Your task to perform on an android device: When is my next meeting? Image 0: 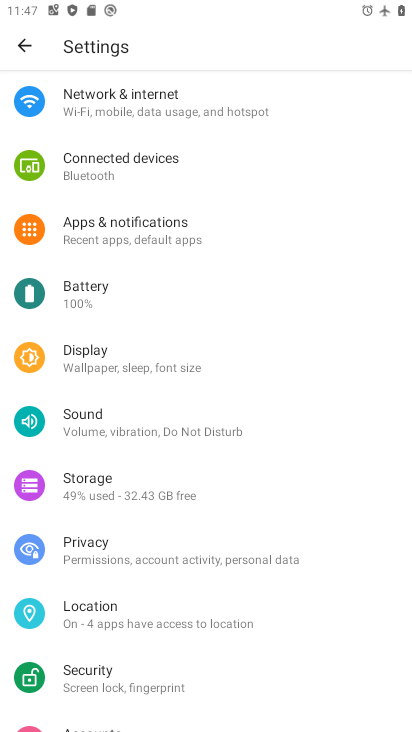
Step 0: press home button
Your task to perform on an android device: When is my next meeting? Image 1: 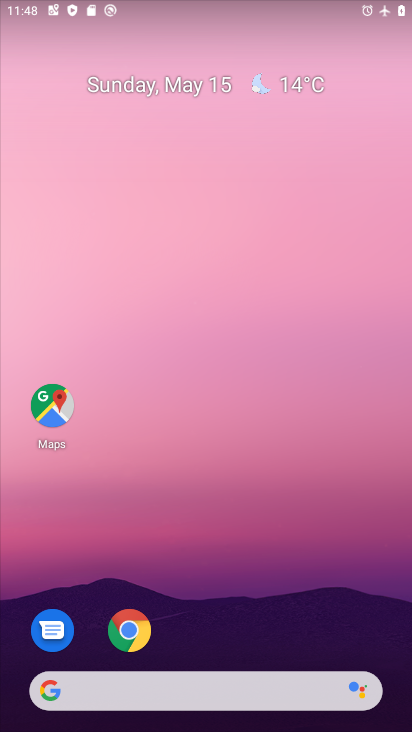
Step 1: drag from (213, 725) to (221, 316)
Your task to perform on an android device: When is my next meeting? Image 2: 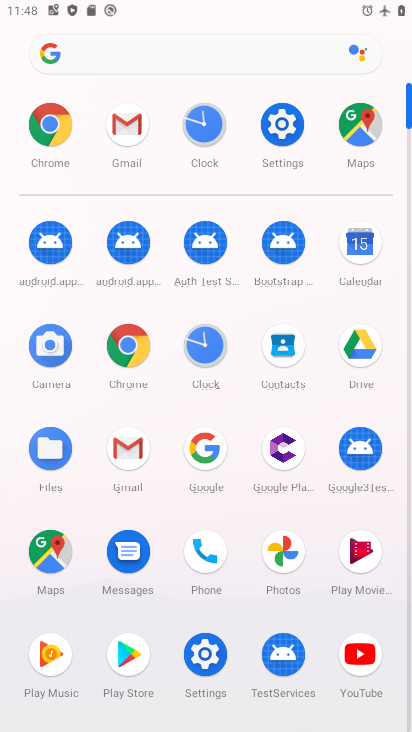
Step 2: click (360, 244)
Your task to perform on an android device: When is my next meeting? Image 3: 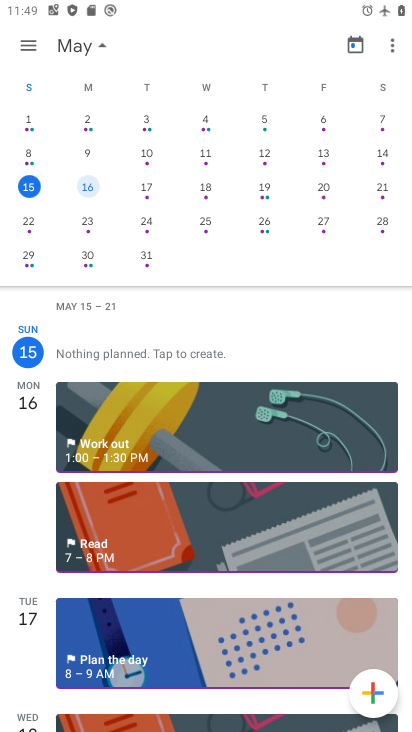
Step 3: click (86, 179)
Your task to perform on an android device: When is my next meeting? Image 4: 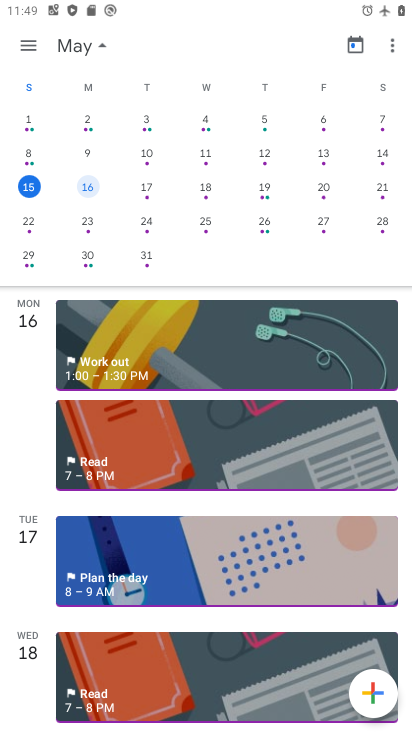
Step 4: click (86, 179)
Your task to perform on an android device: When is my next meeting? Image 5: 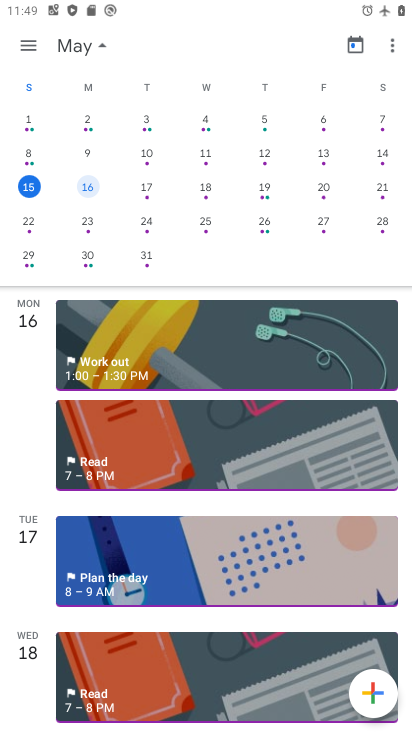
Step 5: task complete